Your task to perform on an android device: Go to network settings Image 0: 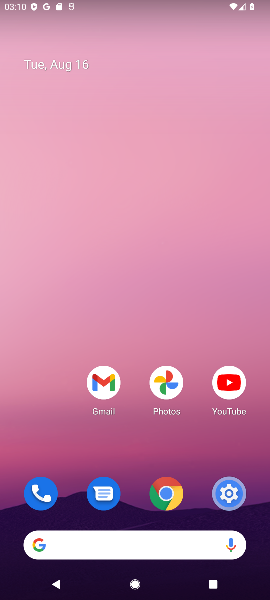
Step 0: drag from (66, 445) to (90, 82)
Your task to perform on an android device: Go to network settings Image 1: 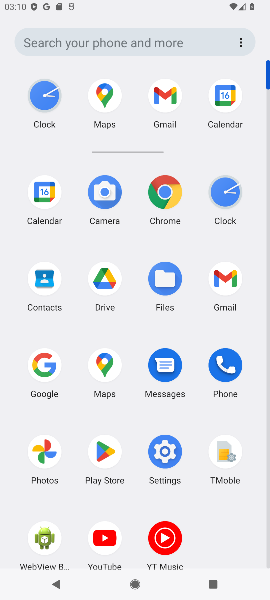
Step 1: click (165, 458)
Your task to perform on an android device: Go to network settings Image 2: 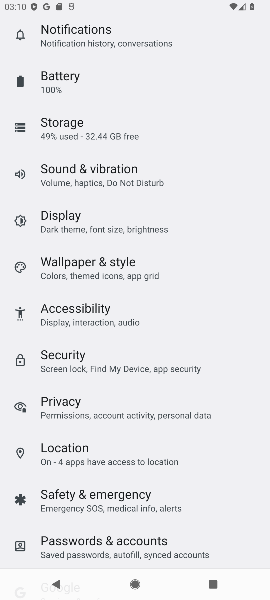
Step 2: drag from (232, 494) to (245, 340)
Your task to perform on an android device: Go to network settings Image 3: 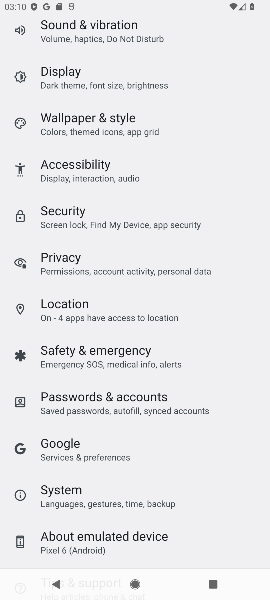
Step 3: drag from (229, 482) to (242, 334)
Your task to perform on an android device: Go to network settings Image 4: 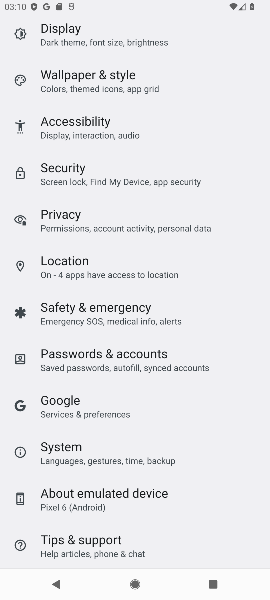
Step 4: drag from (235, 226) to (243, 340)
Your task to perform on an android device: Go to network settings Image 5: 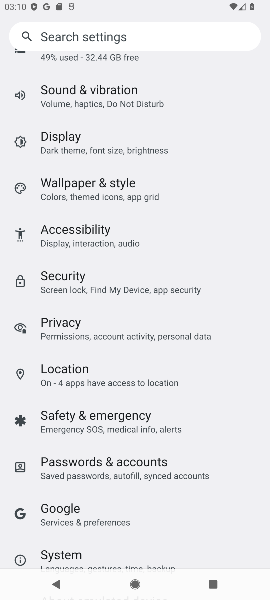
Step 5: drag from (235, 214) to (233, 323)
Your task to perform on an android device: Go to network settings Image 6: 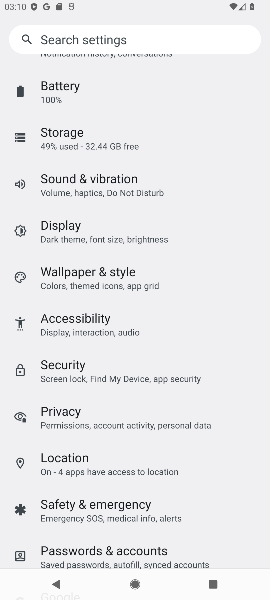
Step 6: drag from (232, 161) to (232, 312)
Your task to perform on an android device: Go to network settings Image 7: 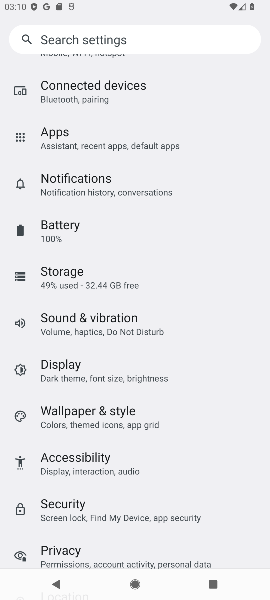
Step 7: drag from (228, 169) to (238, 299)
Your task to perform on an android device: Go to network settings Image 8: 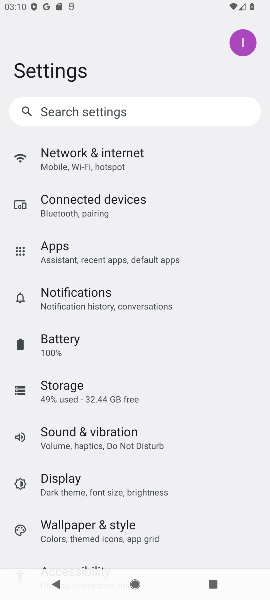
Step 8: click (139, 150)
Your task to perform on an android device: Go to network settings Image 9: 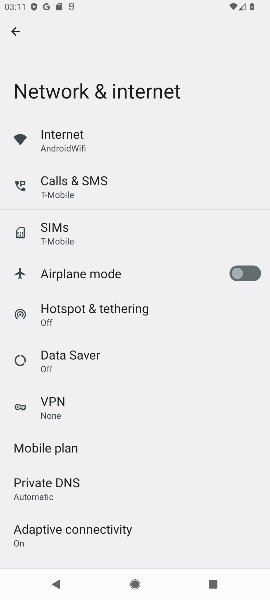
Step 9: task complete